Your task to perform on an android device: move an email to a new category in the gmail app Image 0: 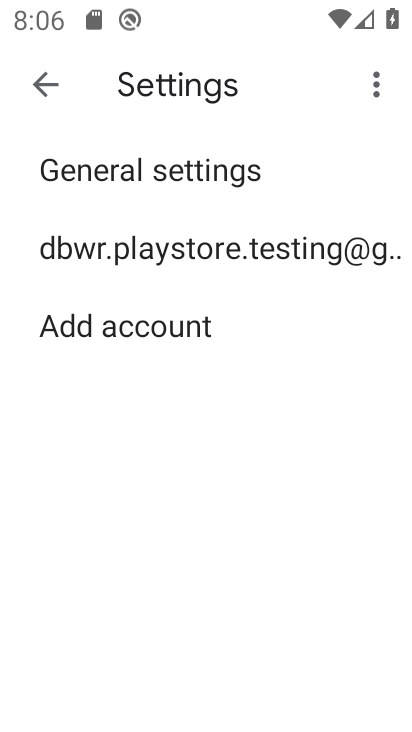
Step 0: click (157, 253)
Your task to perform on an android device: move an email to a new category in the gmail app Image 1: 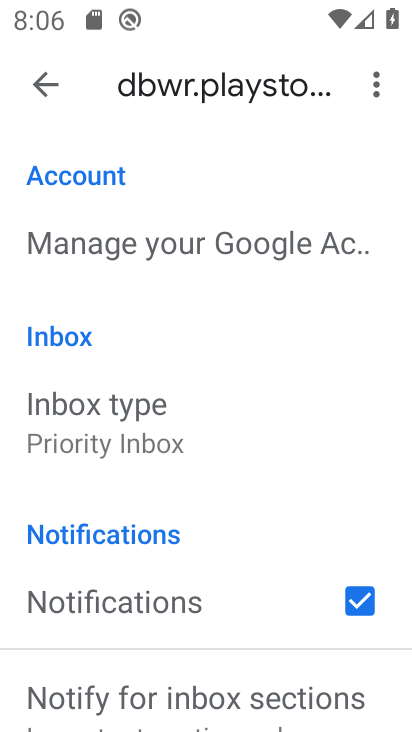
Step 1: drag from (98, 178) to (190, 195)
Your task to perform on an android device: move an email to a new category in the gmail app Image 2: 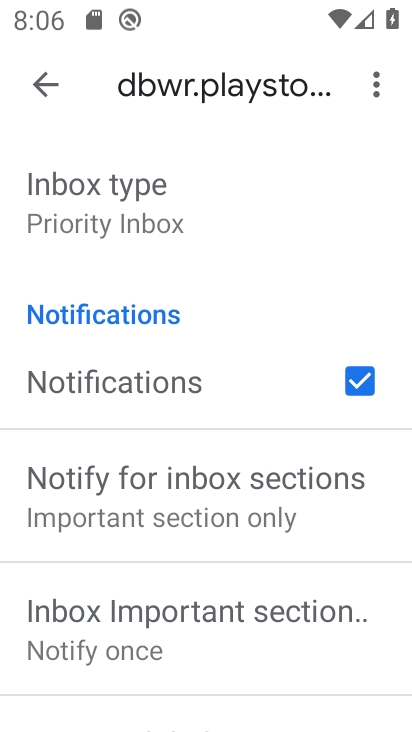
Step 2: drag from (118, 599) to (70, 204)
Your task to perform on an android device: move an email to a new category in the gmail app Image 3: 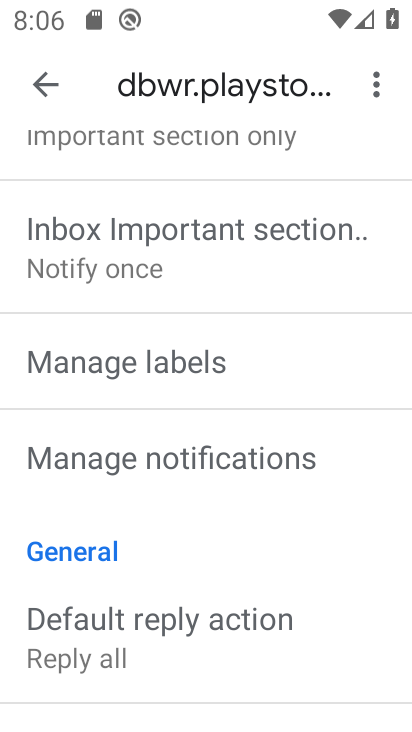
Step 3: drag from (197, 614) to (150, 213)
Your task to perform on an android device: move an email to a new category in the gmail app Image 4: 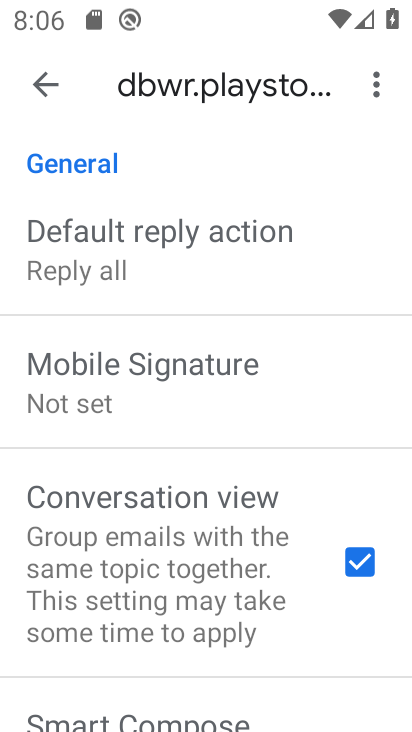
Step 4: drag from (294, 636) to (183, 166)
Your task to perform on an android device: move an email to a new category in the gmail app Image 5: 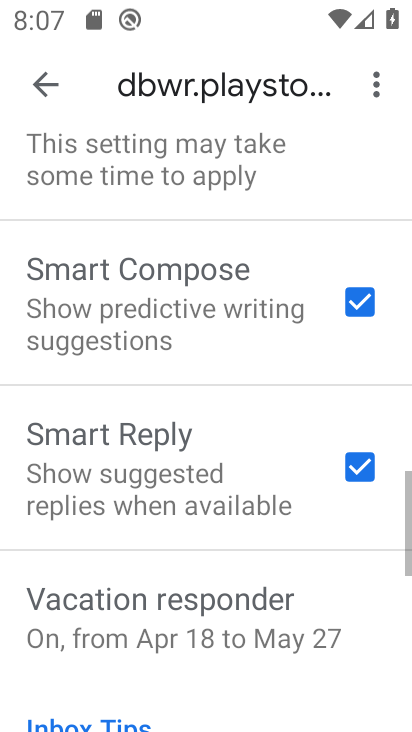
Step 5: drag from (253, 512) to (161, 236)
Your task to perform on an android device: move an email to a new category in the gmail app Image 6: 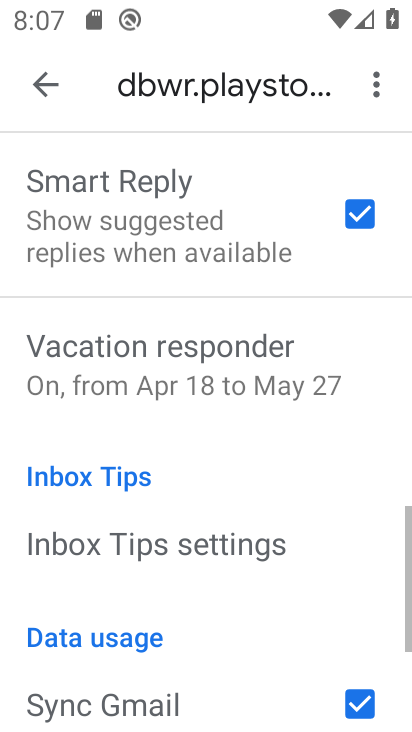
Step 6: drag from (156, 499) to (203, 279)
Your task to perform on an android device: move an email to a new category in the gmail app Image 7: 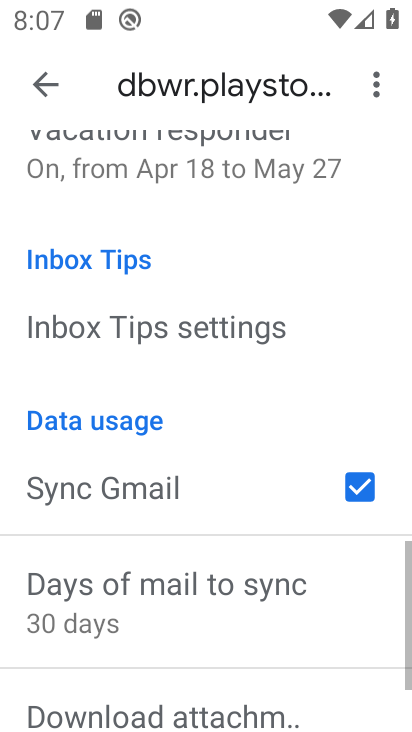
Step 7: click (40, 78)
Your task to perform on an android device: move an email to a new category in the gmail app Image 8: 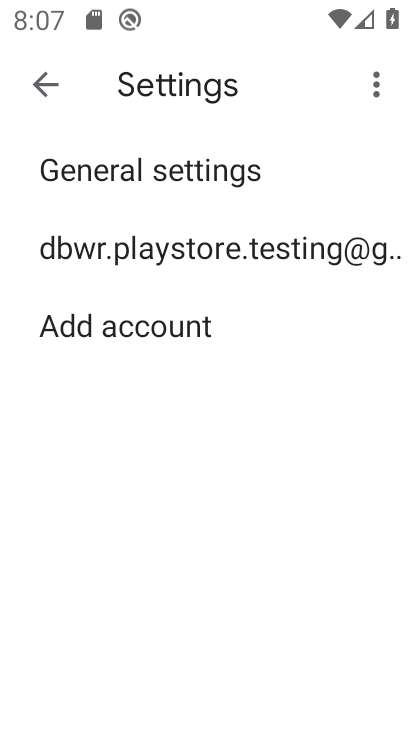
Step 8: click (32, 77)
Your task to perform on an android device: move an email to a new category in the gmail app Image 9: 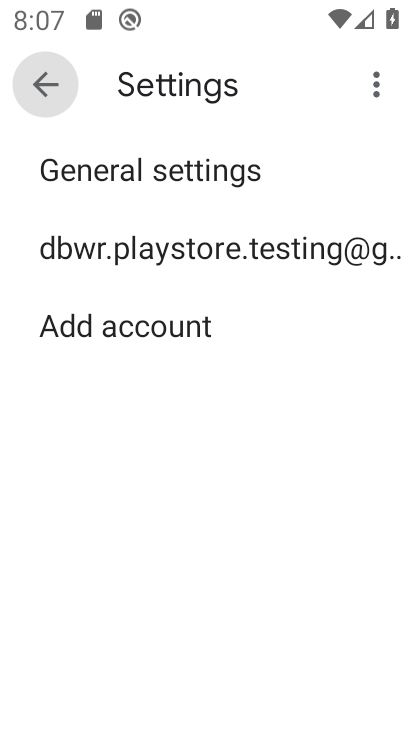
Step 9: click (38, 80)
Your task to perform on an android device: move an email to a new category in the gmail app Image 10: 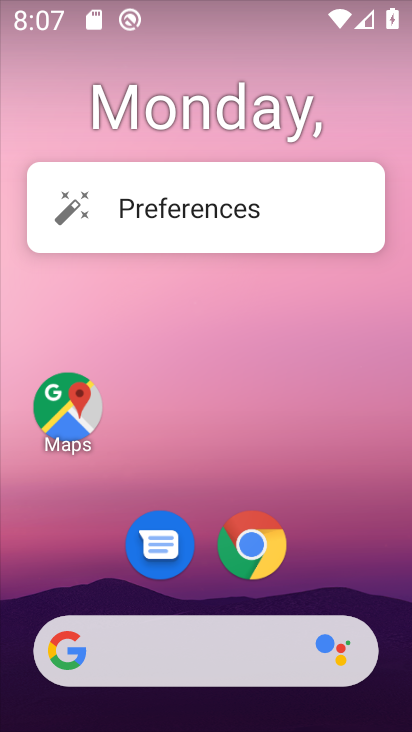
Step 10: drag from (362, 575) to (244, 171)
Your task to perform on an android device: move an email to a new category in the gmail app Image 11: 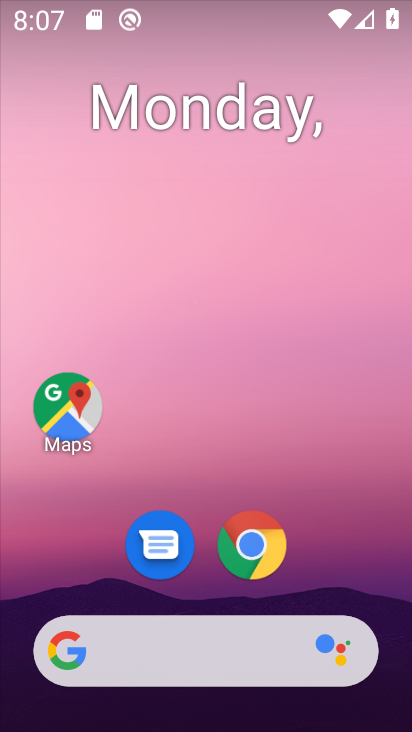
Step 11: drag from (370, 575) to (178, 109)
Your task to perform on an android device: move an email to a new category in the gmail app Image 12: 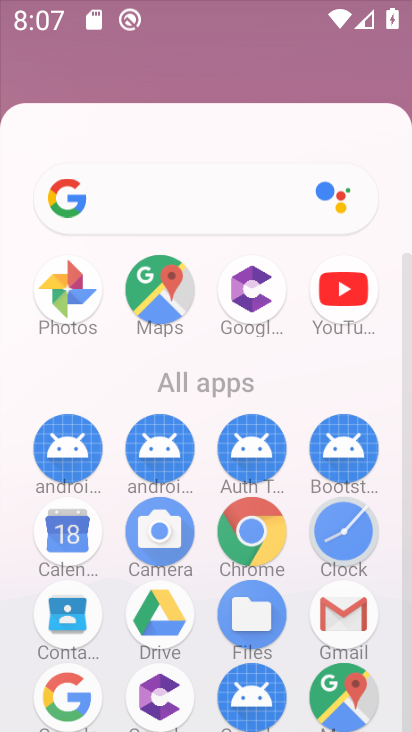
Step 12: drag from (251, 478) to (138, 71)
Your task to perform on an android device: move an email to a new category in the gmail app Image 13: 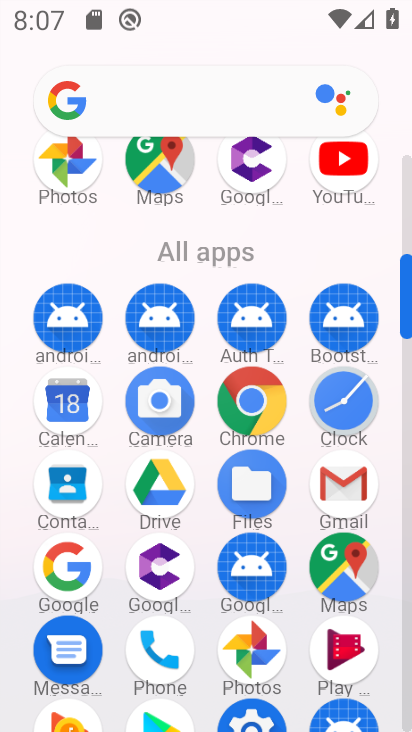
Step 13: click (351, 489)
Your task to perform on an android device: move an email to a new category in the gmail app Image 14: 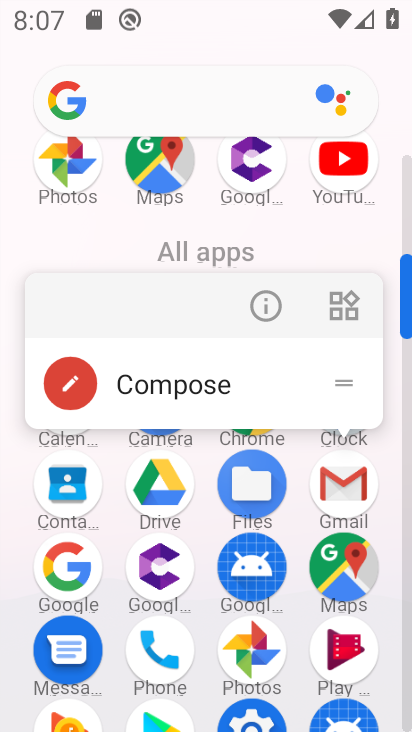
Step 14: click (332, 467)
Your task to perform on an android device: move an email to a new category in the gmail app Image 15: 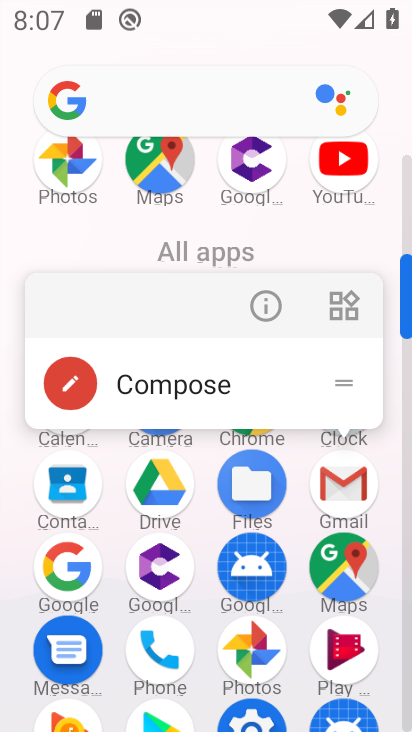
Step 15: click (334, 470)
Your task to perform on an android device: move an email to a new category in the gmail app Image 16: 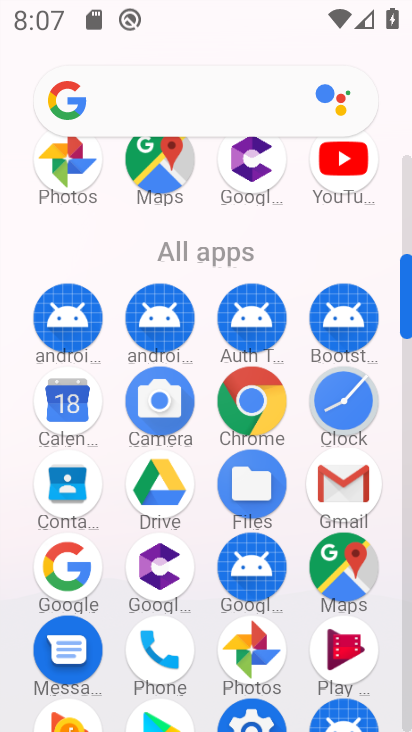
Step 16: click (337, 475)
Your task to perform on an android device: move an email to a new category in the gmail app Image 17: 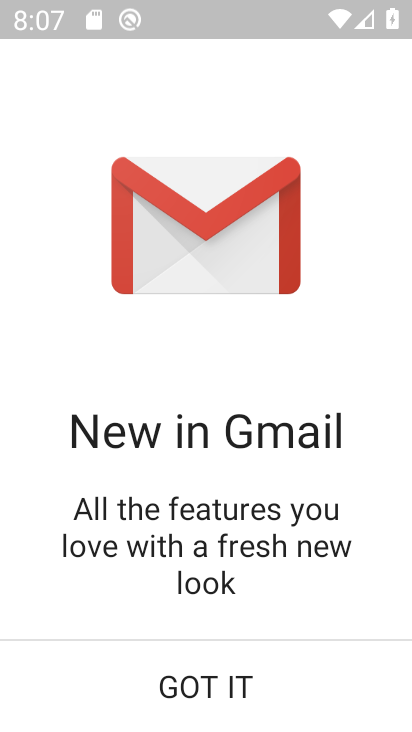
Step 17: click (202, 687)
Your task to perform on an android device: move an email to a new category in the gmail app Image 18: 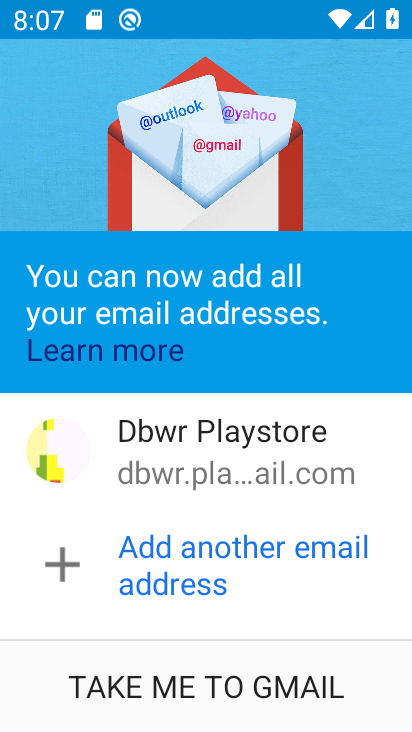
Step 18: click (225, 678)
Your task to perform on an android device: move an email to a new category in the gmail app Image 19: 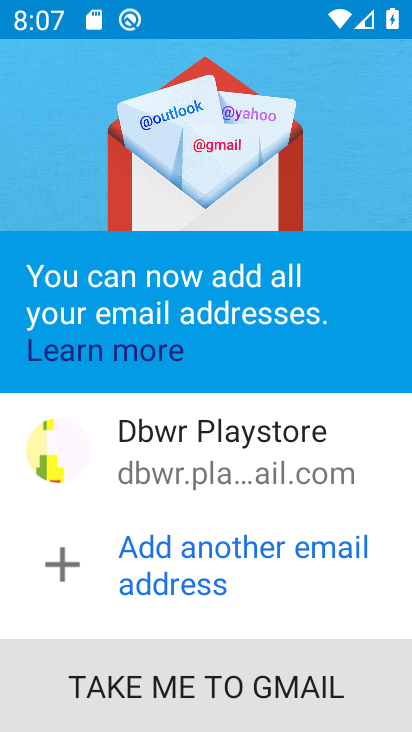
Step 19: click (230, 675)
Your task to perform on an android device: move an email to a new category in the gmail app Image 20: 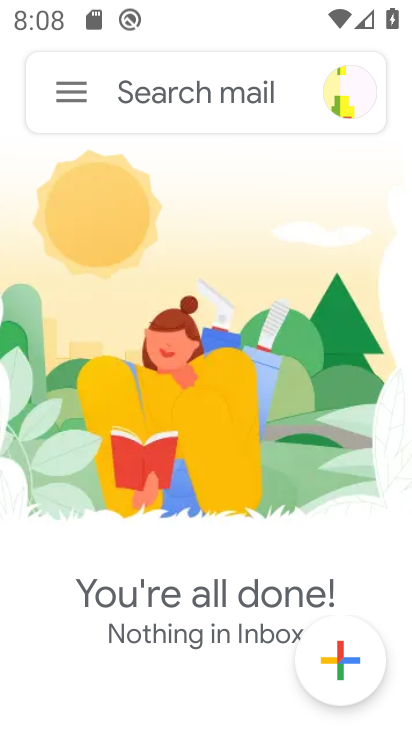
Step 20: click (68, 90)
Your task to perform on an android device: move an email to a new category in the gmail app Image 21: 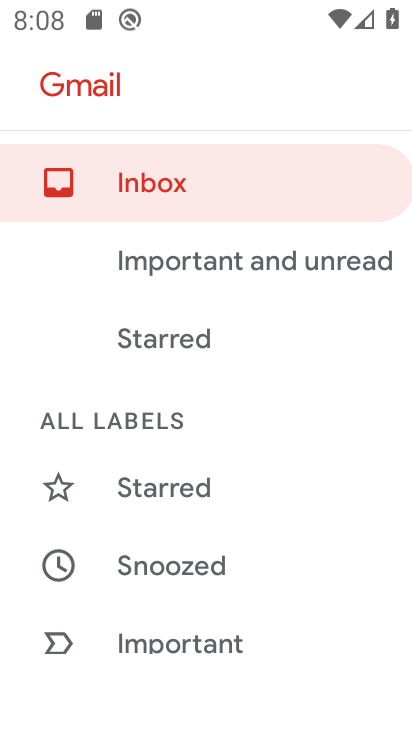
Step 21: drag from (251, 552) to (251, 240)
Your task to perform on an android device: move an email to a new category in the gmail app Image 22: 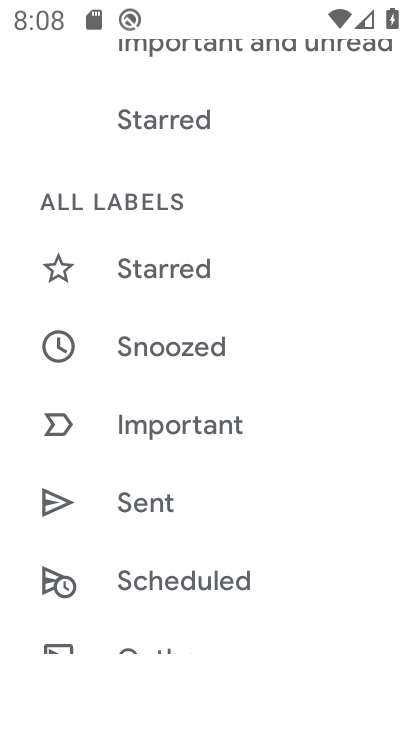
Step 22: drag from (284, 517) to (248, 215)
Your task to perform on an android device: move an email to a new category in the gmail app Image 23: 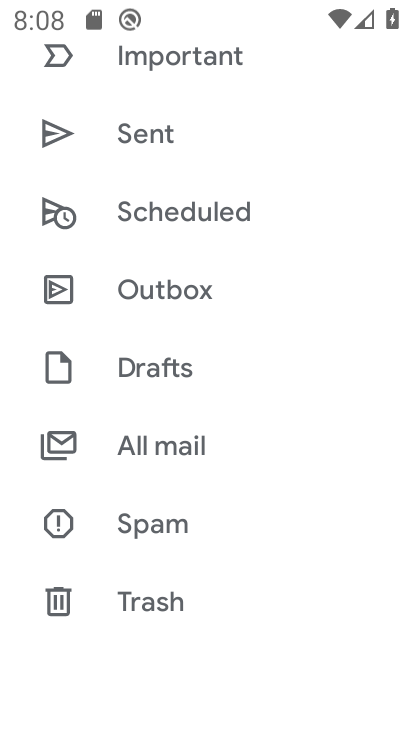
Step 23: click (147, 440)
Your task to perform on an android device: move an email to a new category in the gmail app Image 24: 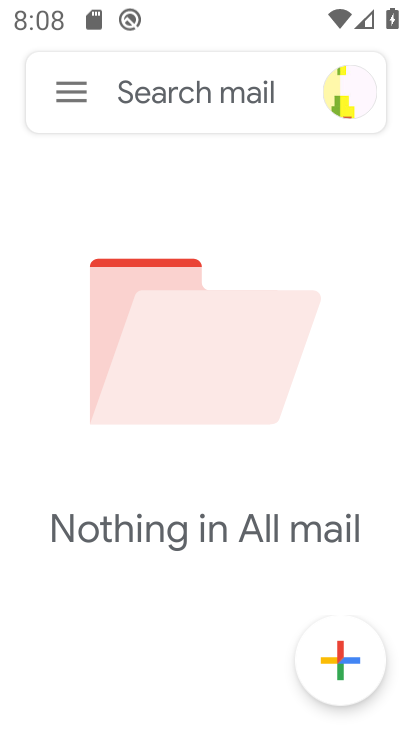
Step 24: task complete